Your task to perform on an android device: delete location history Image 0: 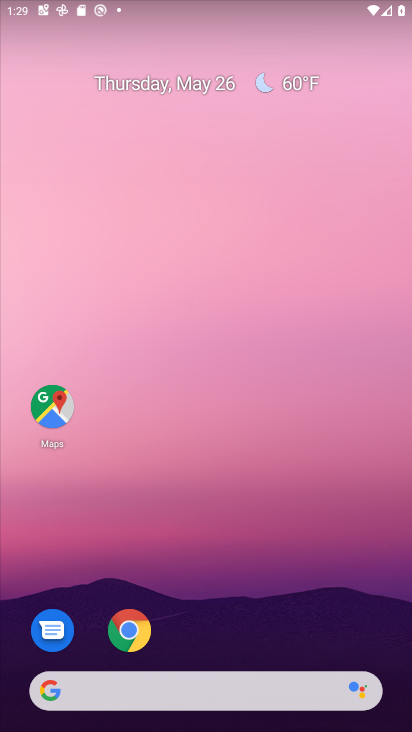
Step 0: drag from (297, 552) to (278, 102)
Your task to perform on an android device: delete location history Image 1: 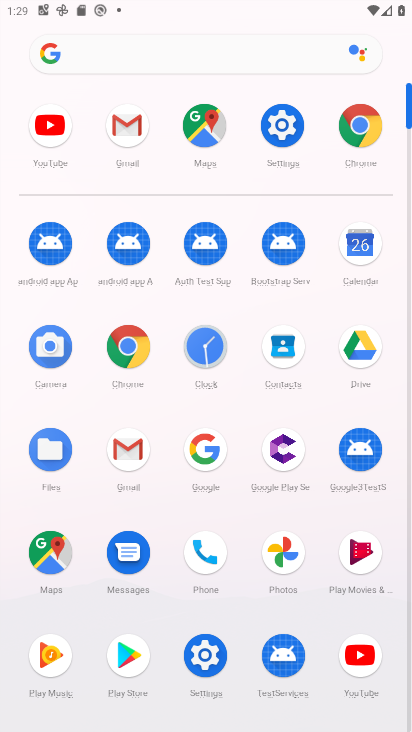
Step 1: click (209, 119)
Your task to perform on an android device: delete location history Image 2: 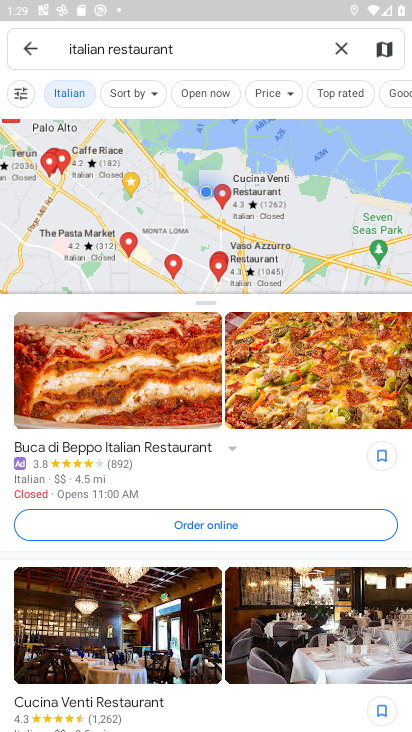
Step 2: click (20, 51)
Your task to perform on an android device: delete location history Image 3: 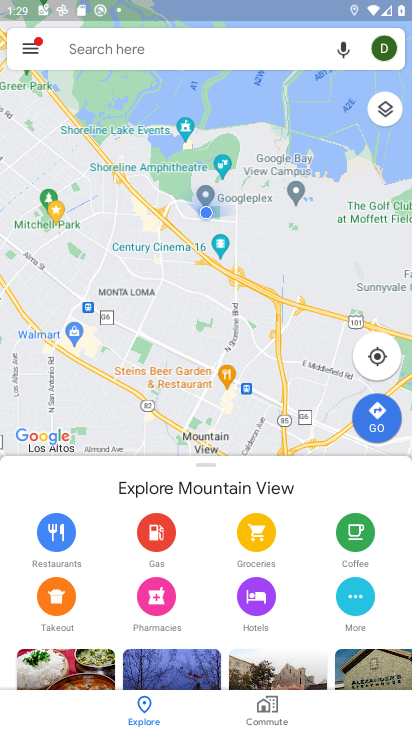
Step 3: click (31, 44)
Your task to perform on an android device: delete location history Image 4: 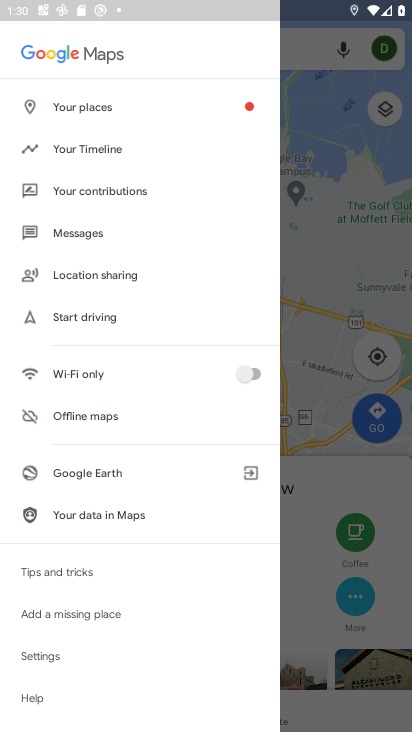
Step 4: click (31, 652)
Your task to perform on an android device: delete location history Image 5: 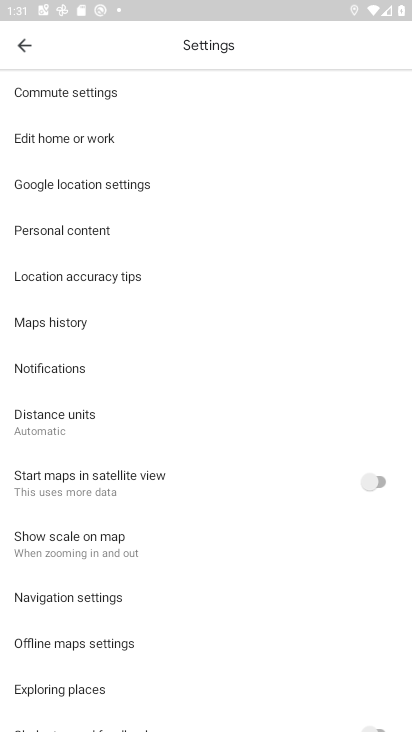
Step 5: drag from (239, 637) to (252, 277)
Your task to perform on an android device: delete location history Image 6: 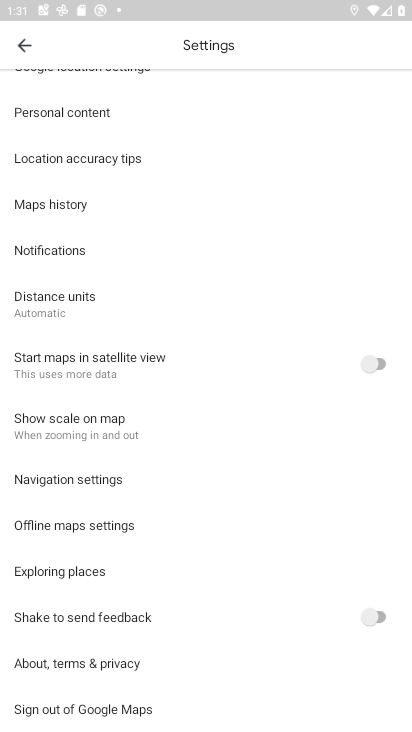
Step 6: drag from (161, 588) to (200, 165)
Your task to perform on an android device: delete location history Image 7: 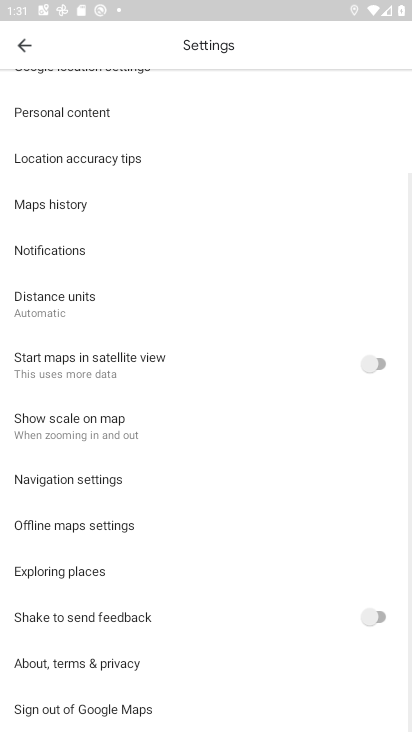
Step 7: drag from (182, 151) to (228, 644)
Your task to perform on an android device: delete location history Image 8: 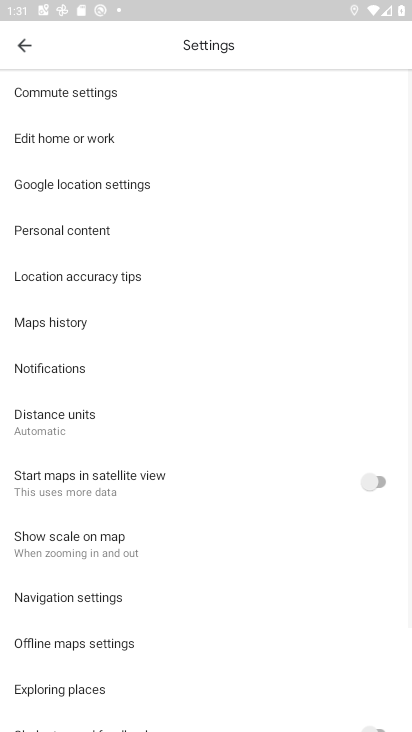
Step 8: drag from (129, 140) to (187, 683)
Your task to perform on an android device: delete location history Image 9: 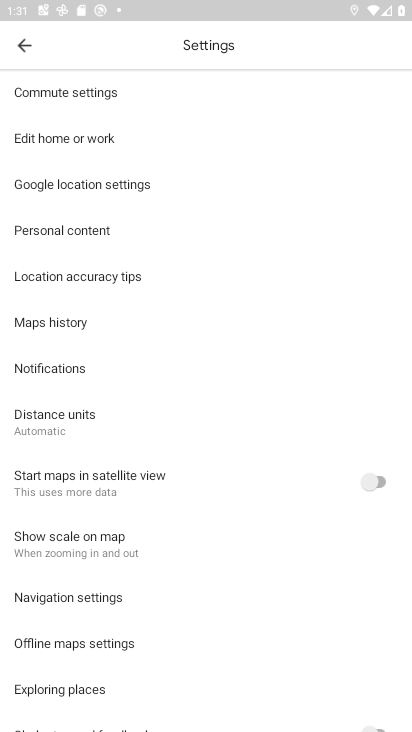
Step 9: drag from (17, 110) to (145, 656)
Your task to perform on an android device: delete location history Image 10: 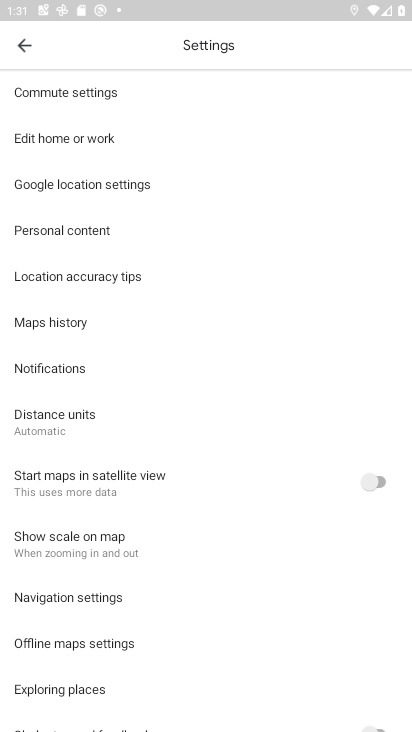
Step 10: click (24, 49)
Your task to perform on an android device: delete location history Image 11: 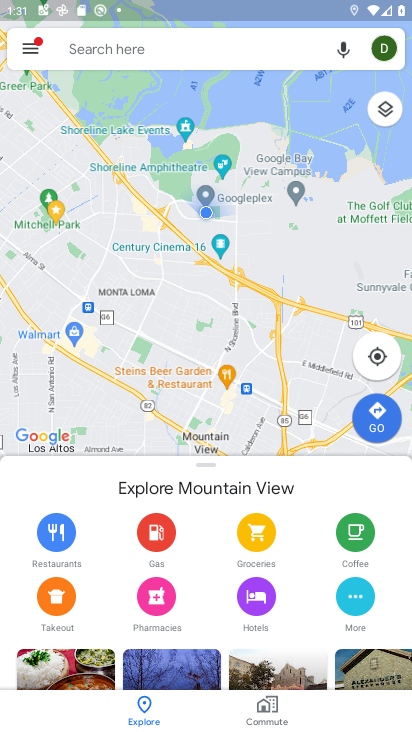
Step 11: click (24, 49)
Your task to perform on an android device: delete location history Image 12: 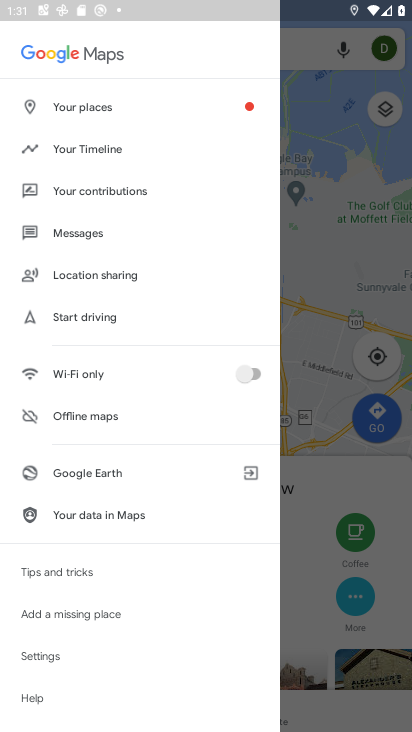
Step 12: click (82, 153)
Your task to perform on an android device: delete location history Image 13: 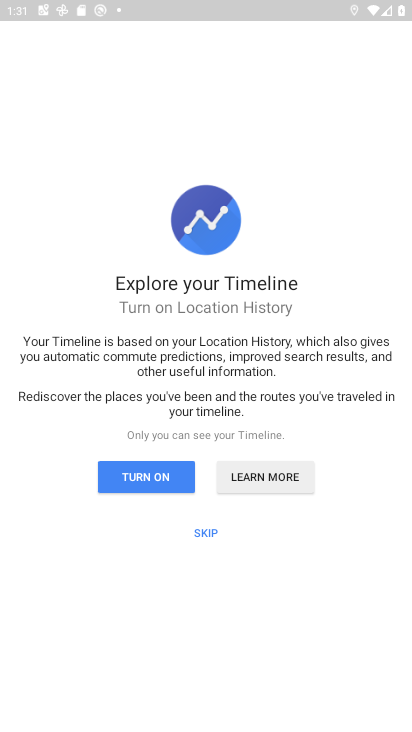
Step 13: click (192, 525)
Your task to perform on an android device: delete location history Image 14: 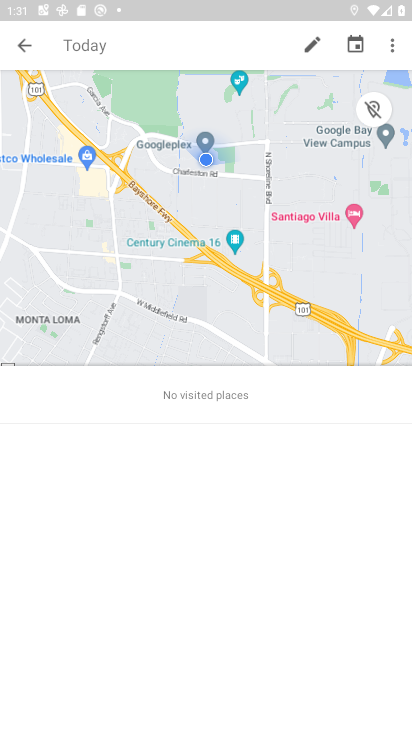
Step 14: click (385, 47)
Your task to perform on an android device: delete location history Image 15: 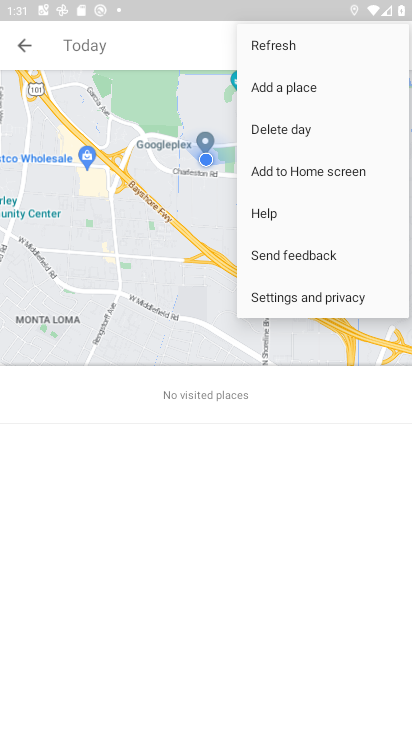
Step 15: click (276, 300)
Your task to perform on an android device: delete location history Image 16: 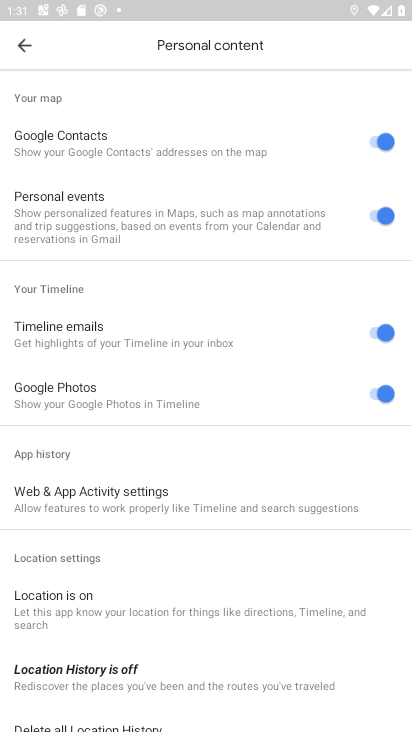
Step 16: drag from (181, 638) to (204, 197)
Your task to perform on an android device: delete location history Image 17: 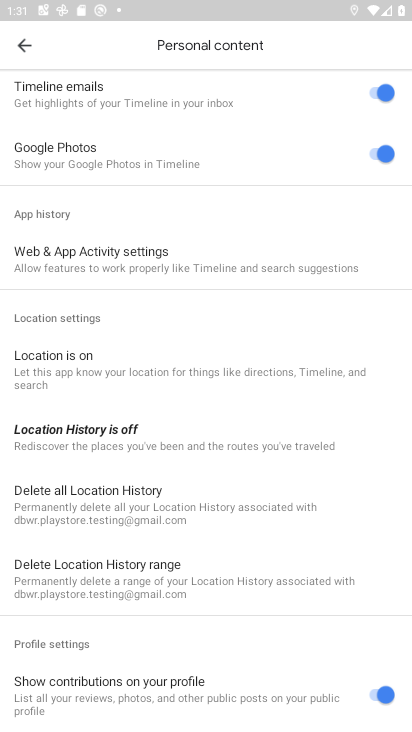
Step 17: click (124, 495)
Your task to perform on an android device: delete location history Image 18: 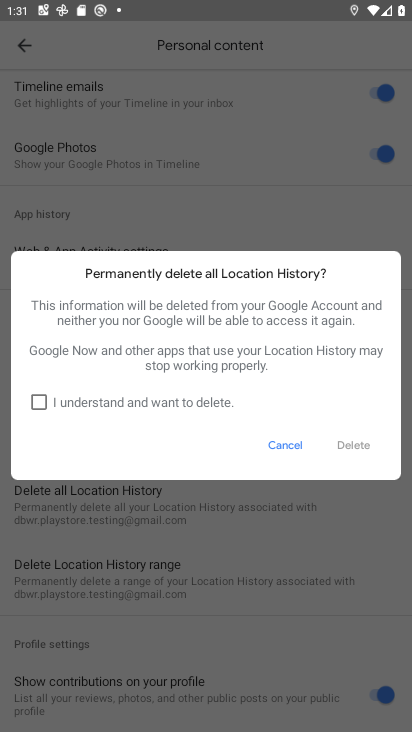
Step 18: click (41, 403)
Your task to perform on an android device: delete location history Image 19: 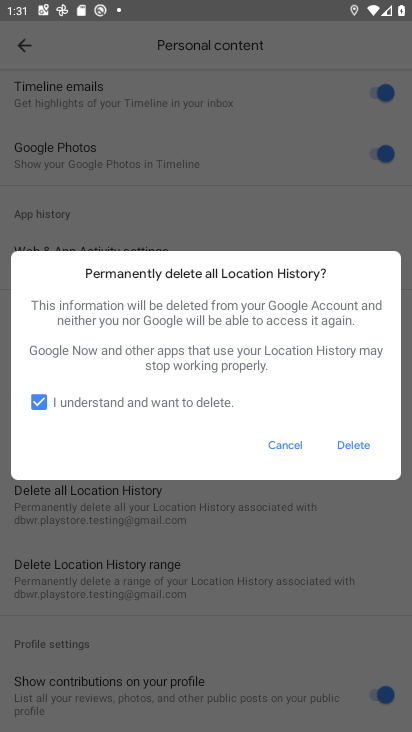
Step 19: click (363, 447)
Your task to perform on an android device: delete location history Image 20: 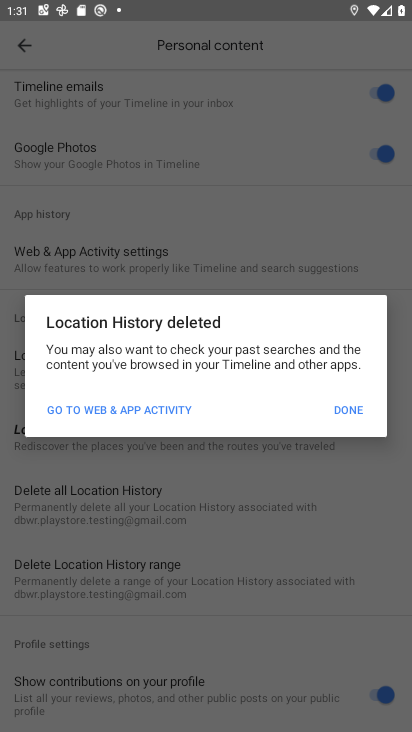
Step 20: click (348, 411)
Your task to perform on an android device: delete location history Image 21: 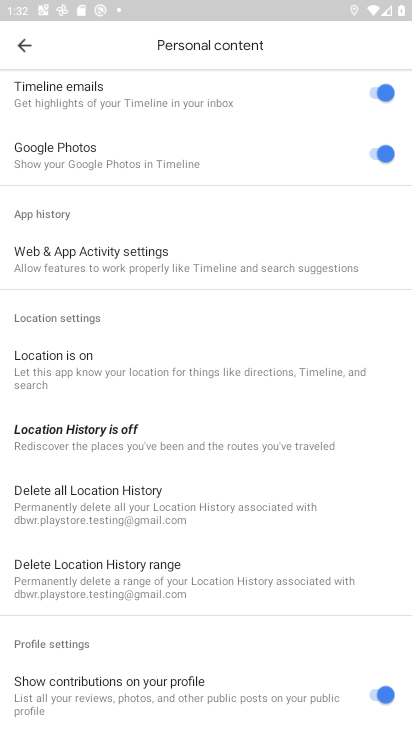
Step 21: task complete